Your task to perform on an android device: Go to Maps Image 0: 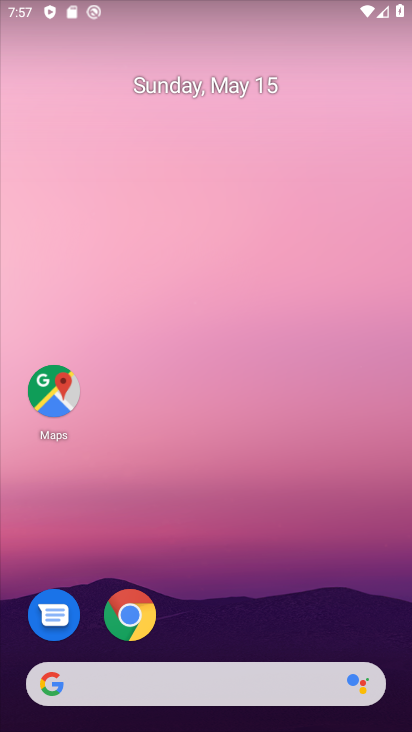
Step 0: drag from (271, 682) to (171, 290)
Your task to perform on an android device: Go to Maps Image 1: 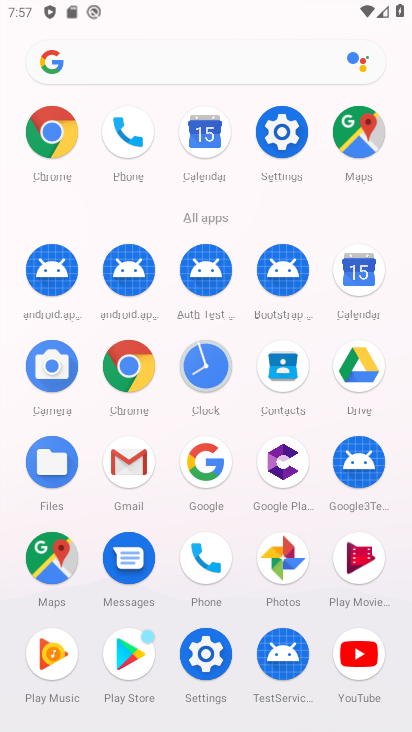
Step 1: click (58, 567)
Your task to perform on an android device: Go to Maps Image 2: 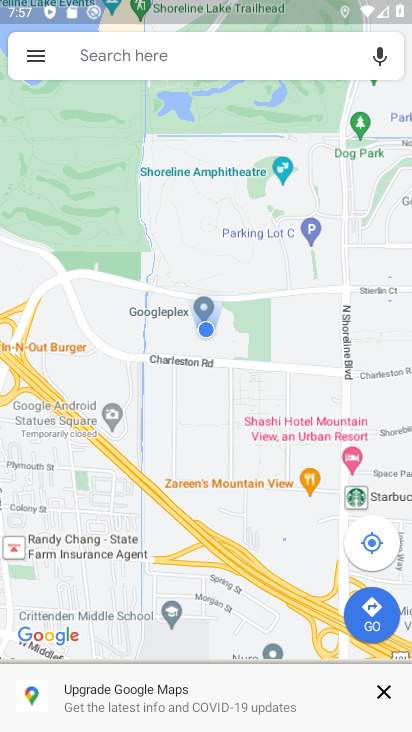
Step 2: task complete